Your task to perform on an android device: toggle sleep mode Image 0: 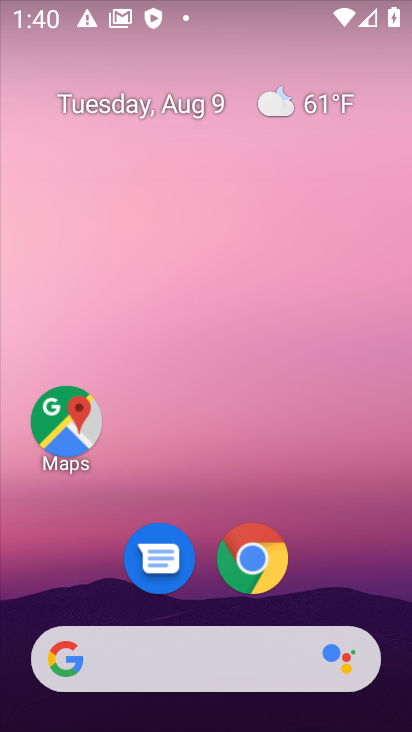
Step 0: drag from (200, 592) to (203, 21)
Your task to perform on an android device: toggle sleep mode Image 1: 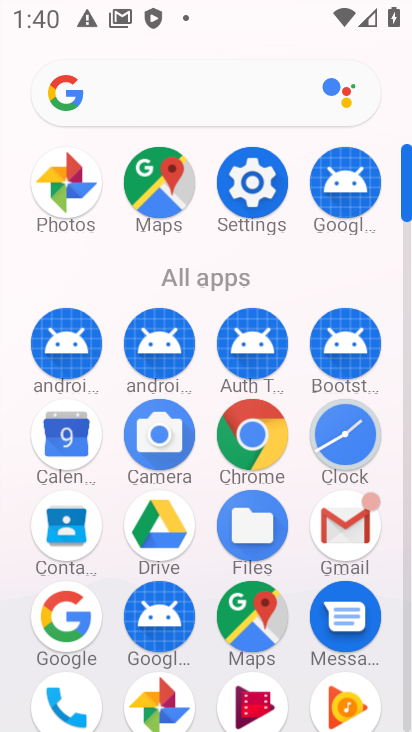
Step 1: click (249, 183)
Your task to perform on an android device: toggle sleep mode Image 2: 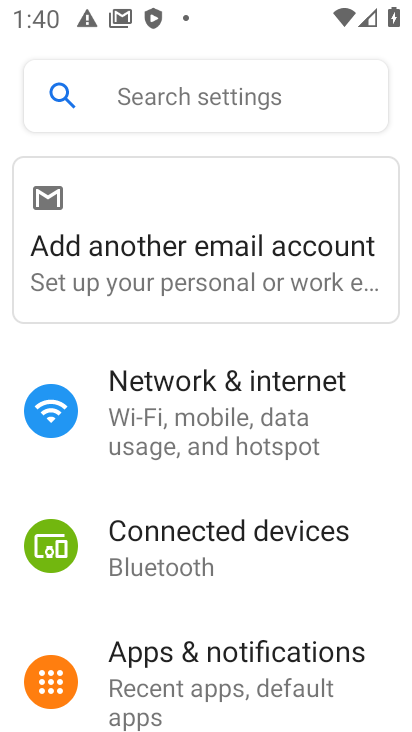
Step 2: task complete